Your task to perform on an android device: turn off airplane mode Image 0: 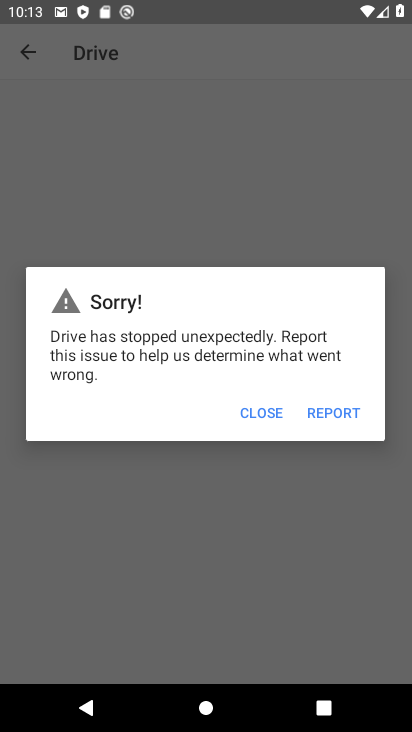
Step 0: press home button
Your task to perform on an android device: turn off airplane mode Image 1: 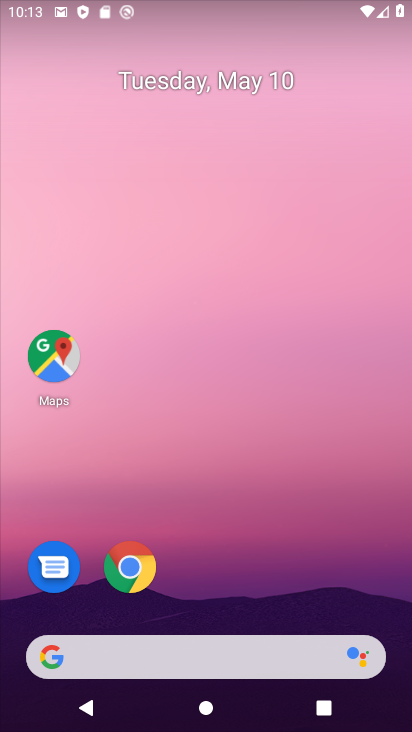
Step 1: drag from (192, 465) to (277, 20)
Your task to perform on an android device: turn off airplane mode Image 2: 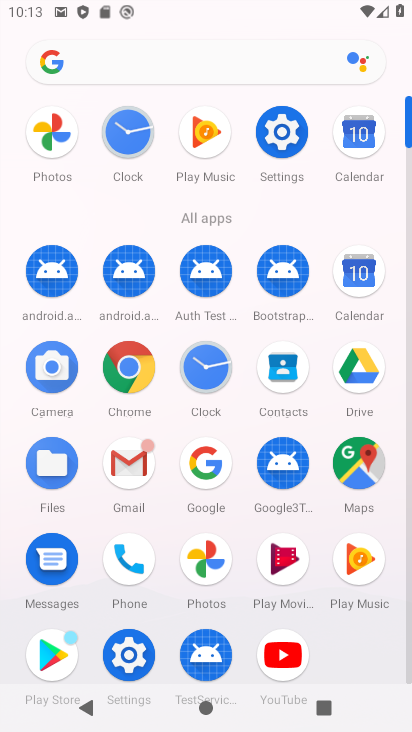
Step 2: click (277, 136)
Your task to perform on an android device: turn off airplane mode Image 3: 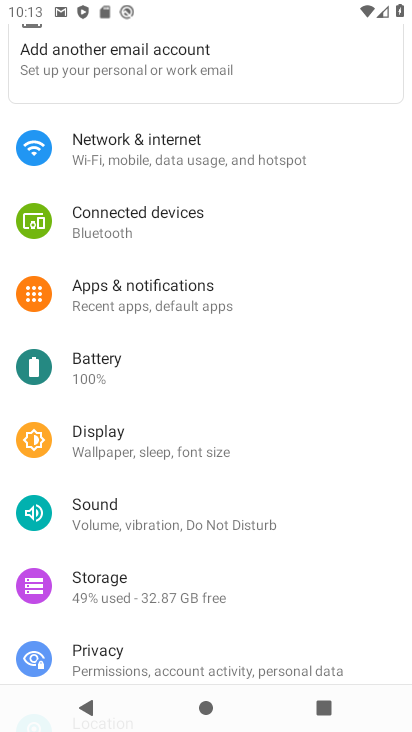
Step 3: click (235, 151)
Your task to perform on an android device: turn off airplane mode Image 4: 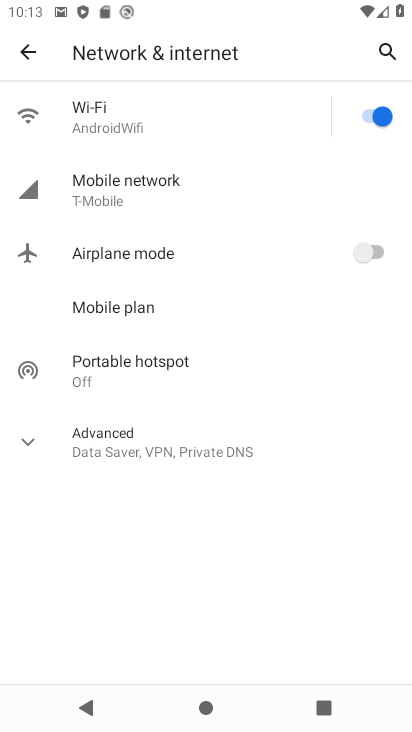
Step 4: task complete